Your task to perform on an android device: open app "Nova Launcher" (install if not already installed) Image 0: 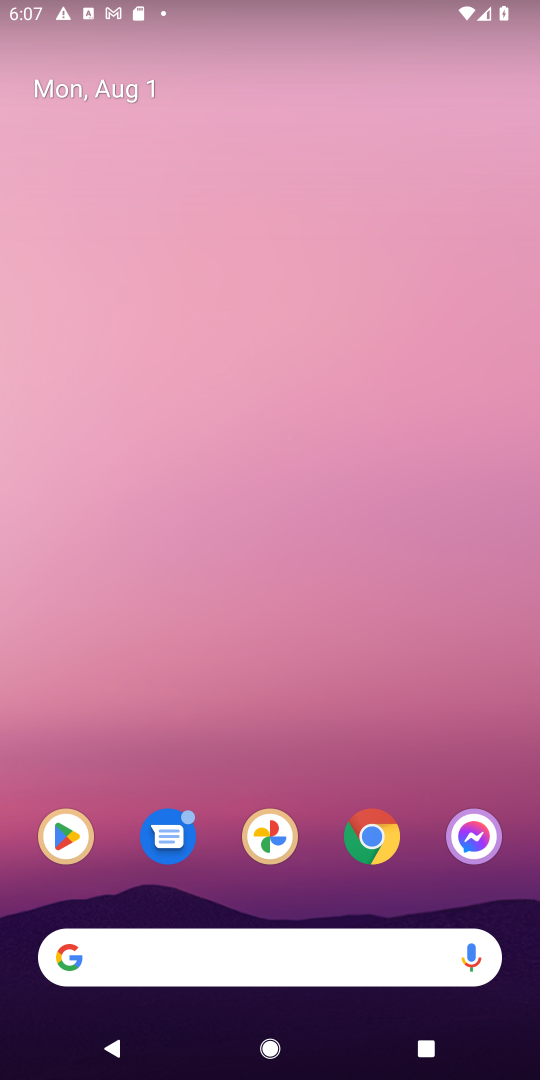
Step 0: press home button
Your task to perform on an android device: open app "Nova Launcher" (install if not already installed) Image 1: 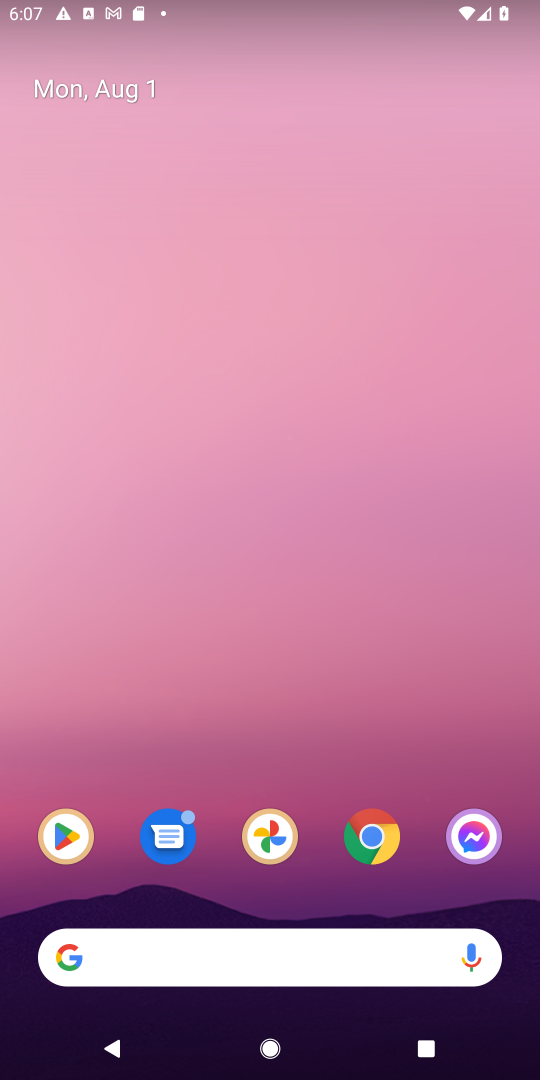
Step 1: click (63, 831)
Your task to perform on an android device: open app "Nova Launcher" (install if not already installed) Image 2: 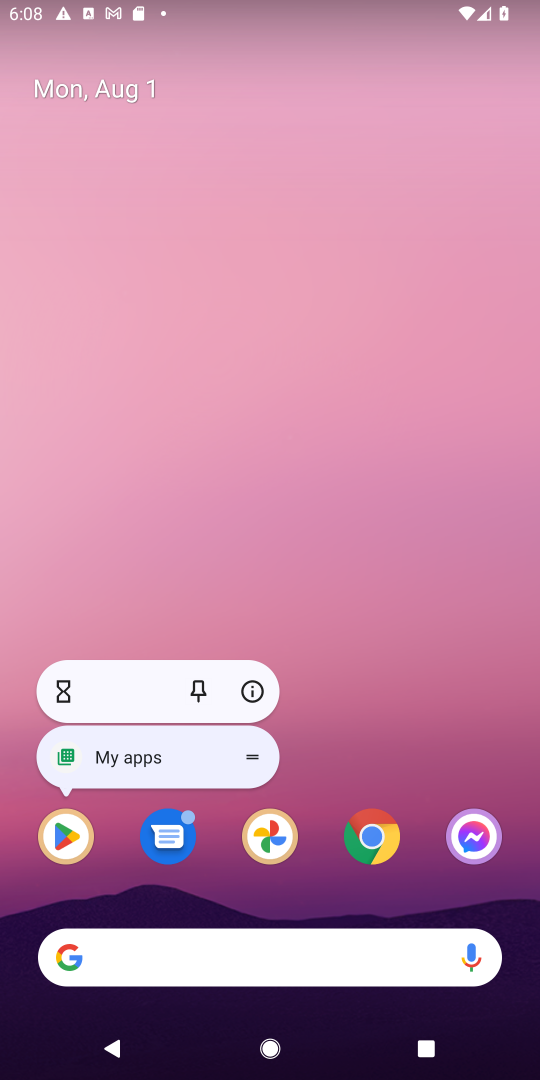
Step 2: click (63, 838)
Your task to perform on an android device: open app "Nova Launcher" (install if not already installed) Image 3: 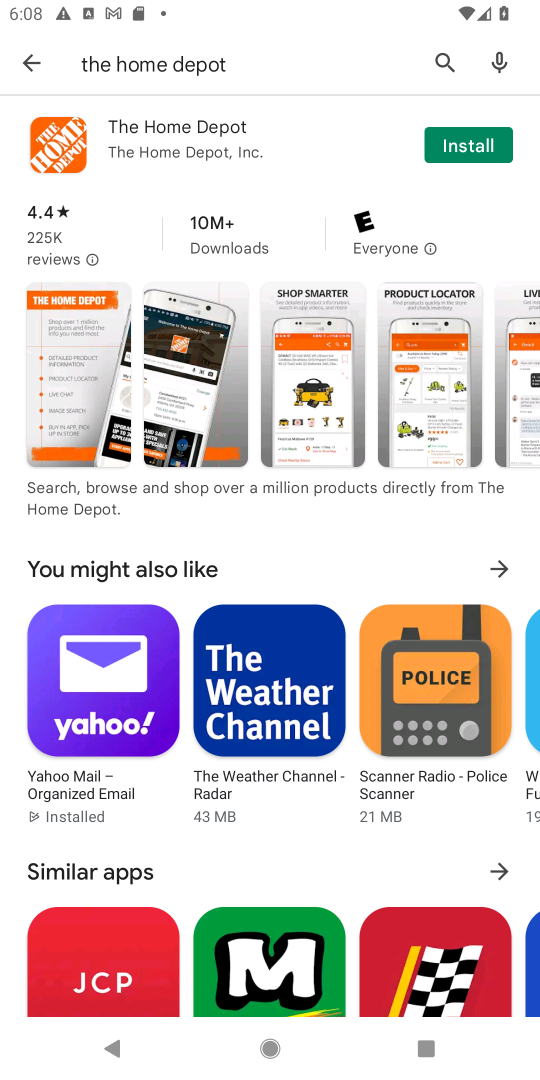
Step 3: click (438, 65)
Your task to perform on an android device: open app "Nova Launcher" (install if not already installed) Image 4: 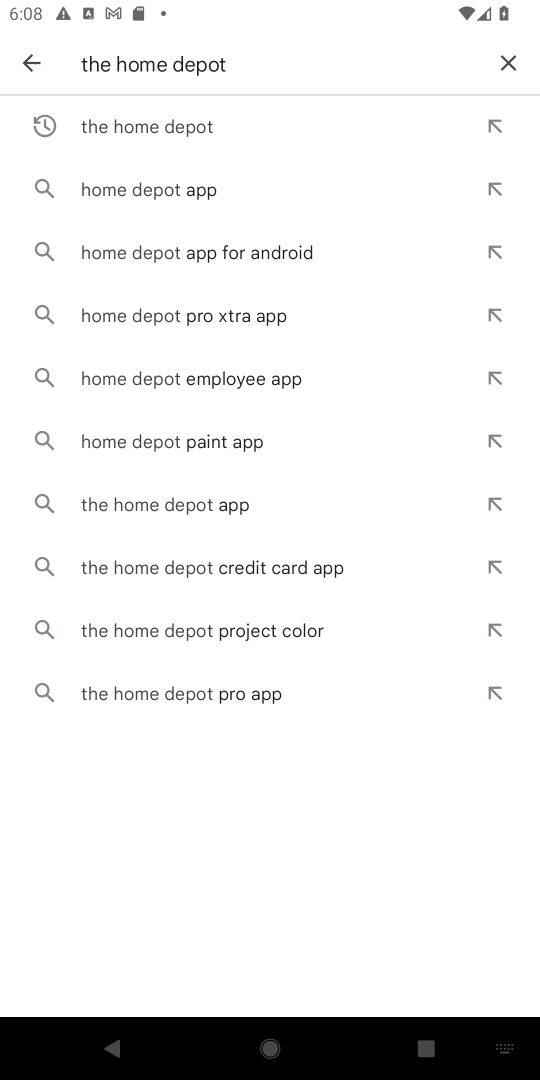
Step 4: click (502, 63)
Your task to perform on an android device: open app "Nova Launcher" (install if not already installed) Image 5: 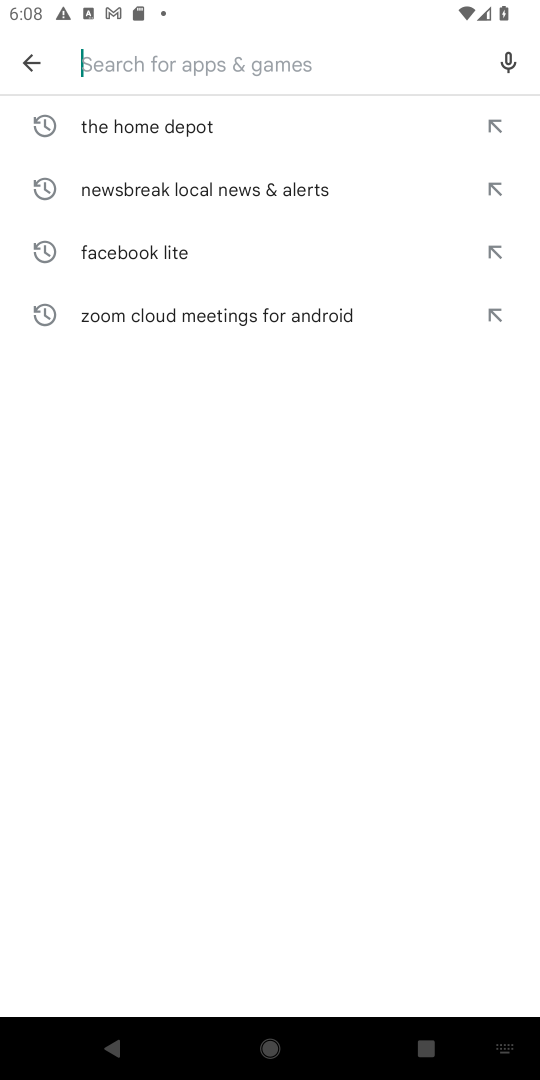
Step 5: type "Nova Launcher"
Your task to perform on an android device: open app "Nova Launcher" (install if not already installed) Image 6: 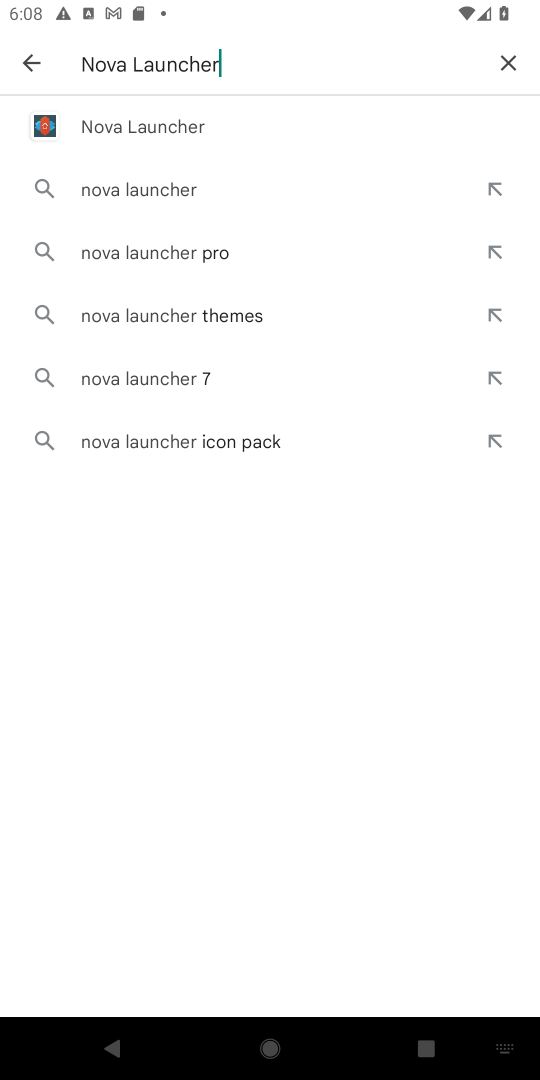
Step 6: click (187, 134)
Your task to perform on an android device: open app "Nova Launcher" (install if not already installed) Image 7: 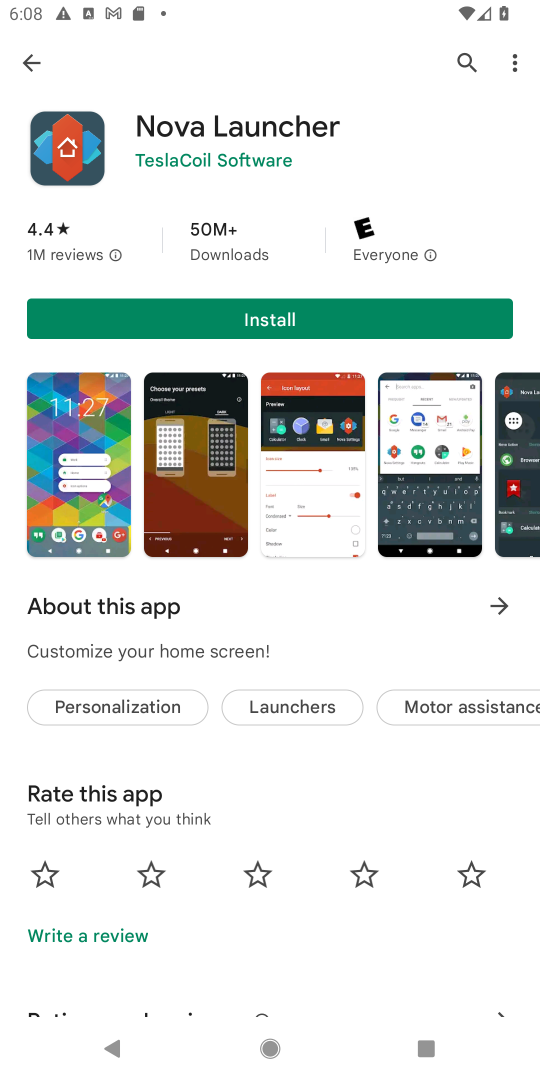
Step 7: click (278, 318)
Your task to perform on an android device: open app "Nova Launcher" (install if not already installed) Image 8: 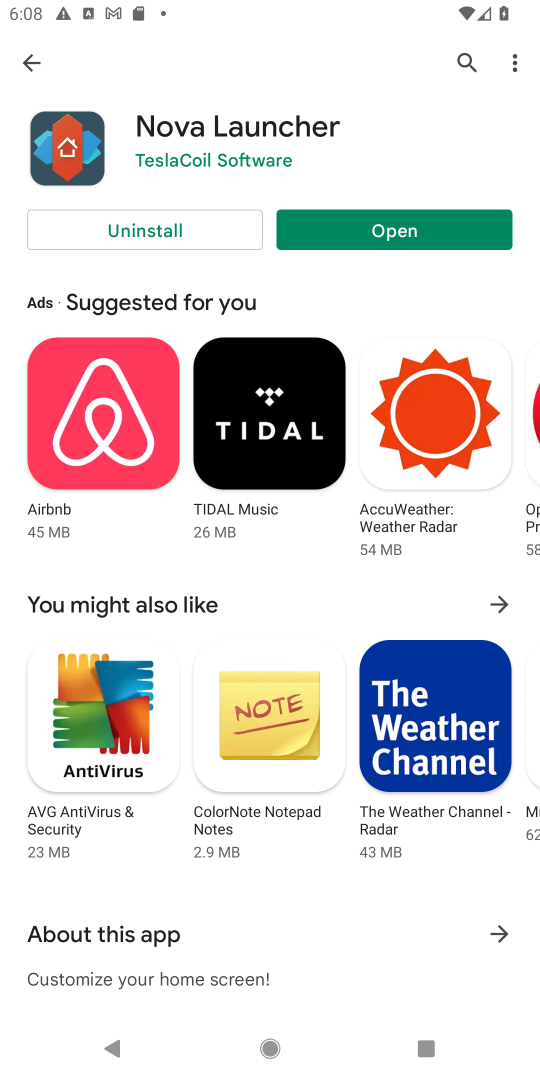
Step 8: click (412, 236)
Your task to perform on an android device: open app "Nova Launcher" (install if not already installed) Image 9: 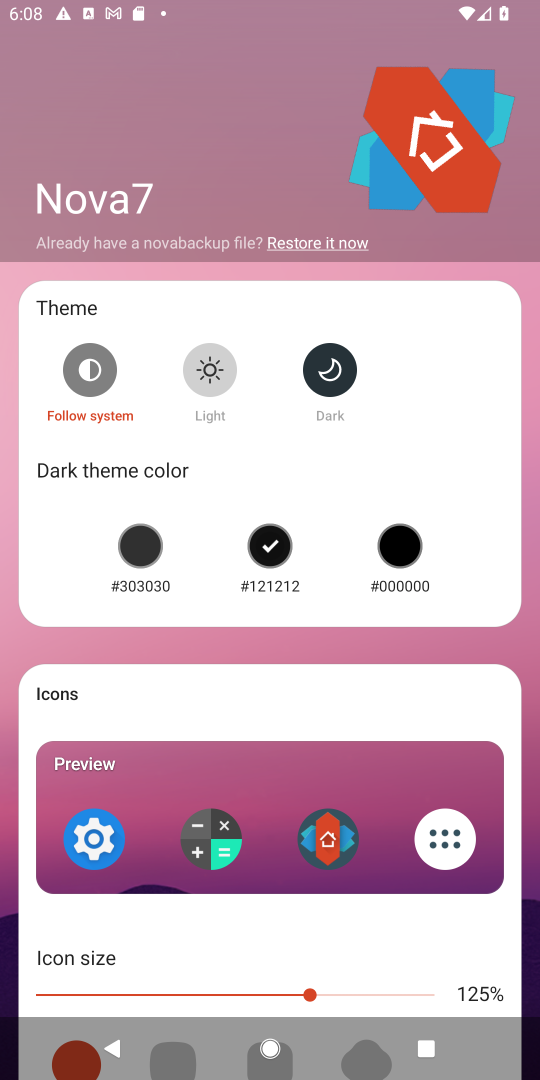
Step 9: task complete